Your task to perform on an android device: turn notification dots on Image 0: 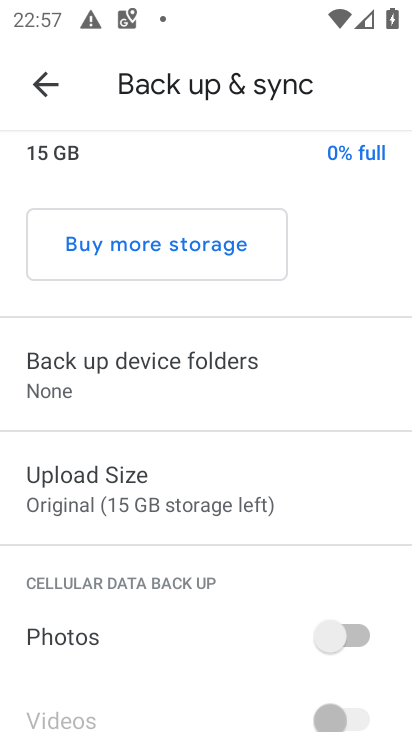
Step 0: drag from (253, 608) to (230, 284)
Your task to perform on an android device: turn notification dots on Image 1: 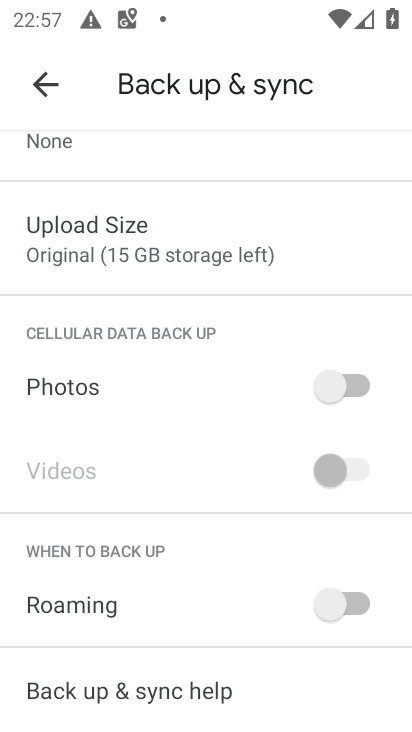
Step 1: press home button
Your task to perform on an android device: turn notification dots on Image 2: 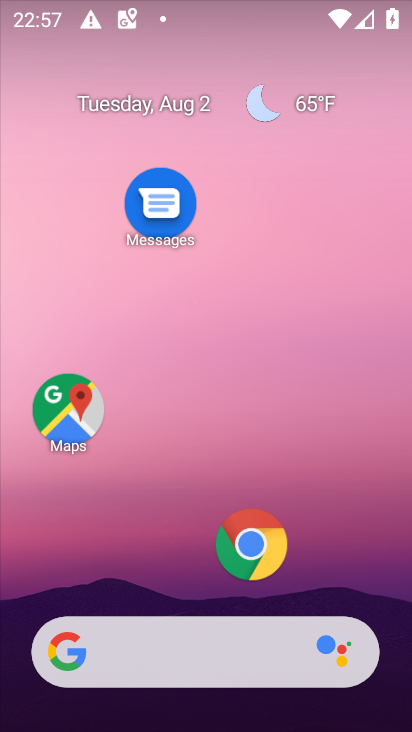
Step 2: drag from (165, 488) to (128, 51)
Your task to perform on an android device: turn notification dots on Image 3: 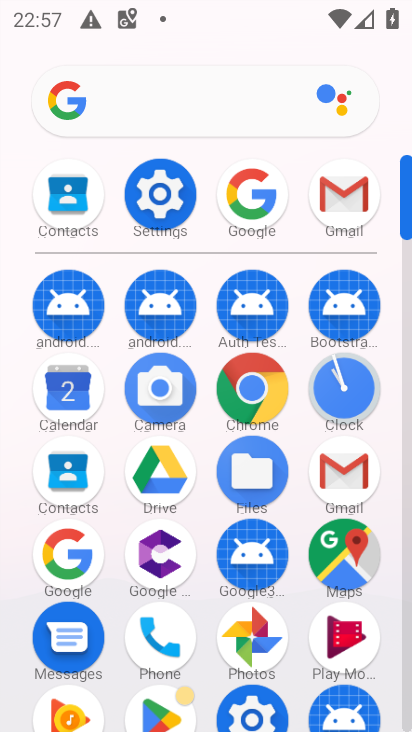
Step 3: click (166, 172)
Your task to perform on an android device: turn notification dots on Image 4: 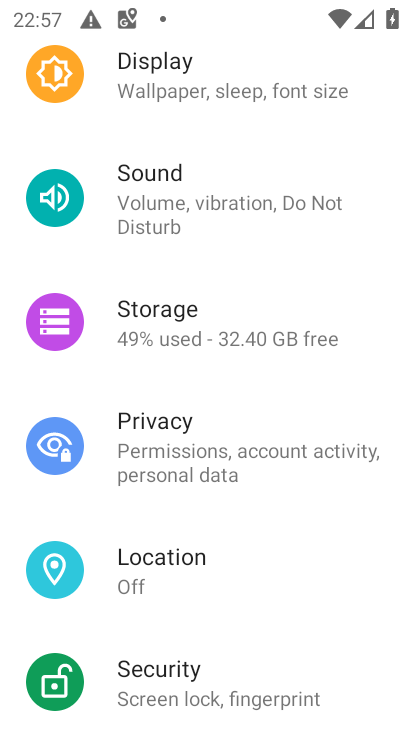
Step 4: drag from (187, 157) to (285, 479)
Your task to perform on an android device: turn notification dots on Image 5: 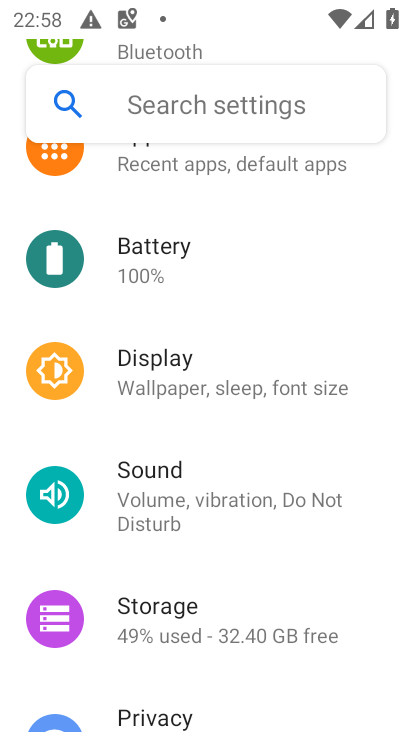
Step 5: drag from (223, 171) to (256, 361)
Your task to perform on an android device: turn notification dots on Image 6: 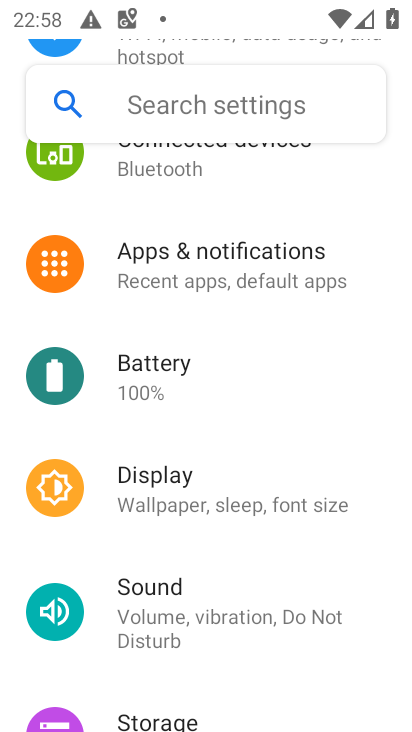
Step 6: click (220, 286)
Your task to perform on an android device: turn notification dots on Image 7: 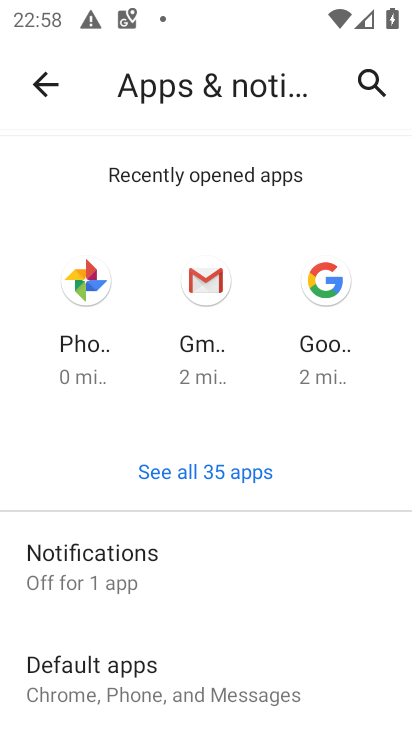
Step 7: click (178, 552)
Your task to perform on an android device: turn notification dots on Image 8: 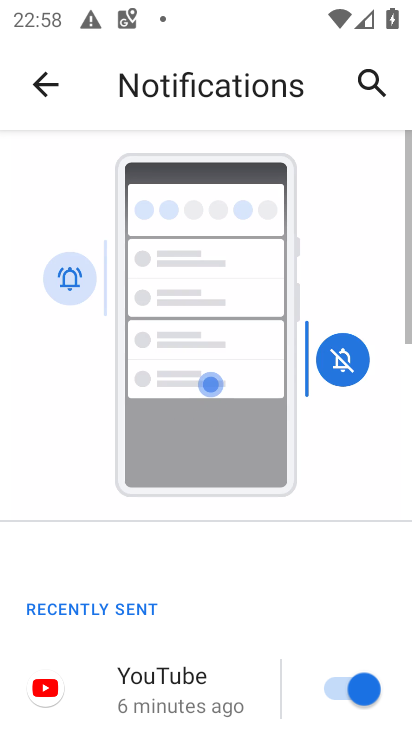
Step 8: drag from (205, 615) to (133, 90)
Your task to perform on an android device: turn notification dots on Image 9: 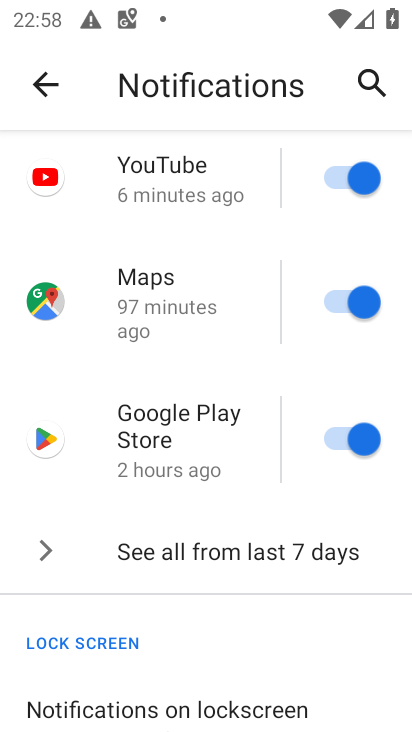
Step 9: drag from (173, 591) to (119, 101)
Your task to perform on an android device: turn notification dots on Image 10: 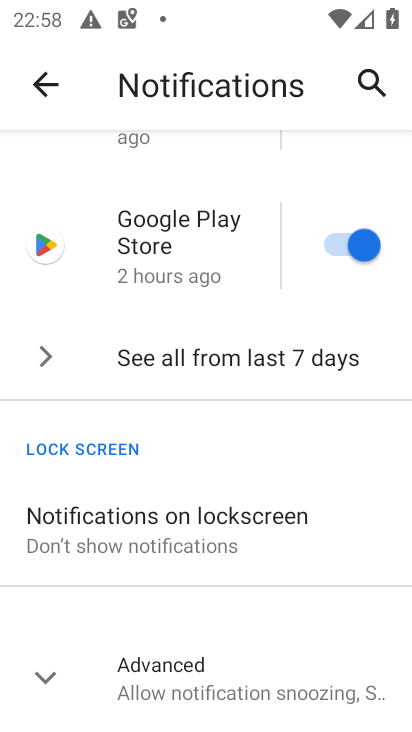
Step 10: click (193, 663)
Your task to perform on an android device: turn notification dots on Image 11: 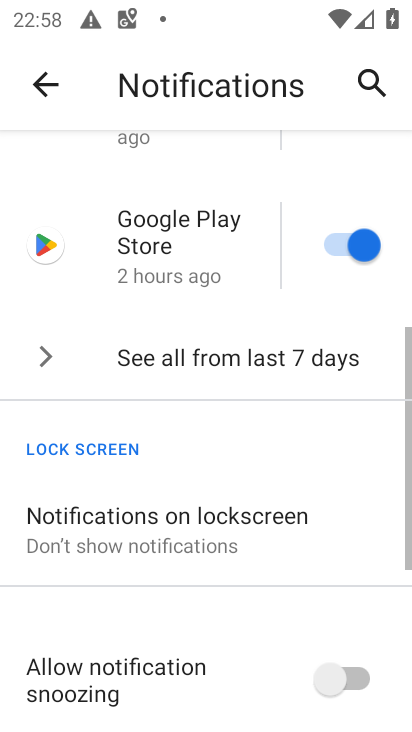
Step 11: task complete